Your task to perform on an android device: open sync settings in chrome Image 0: 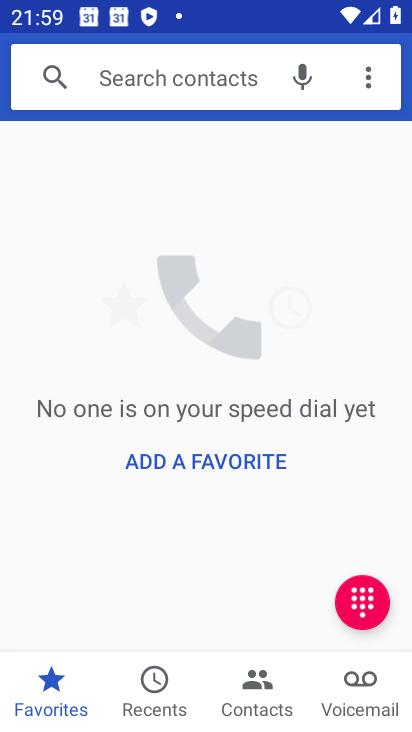
Step 0: press home button
Your task to perform on an android device: open sync settings in chrome Image 1: 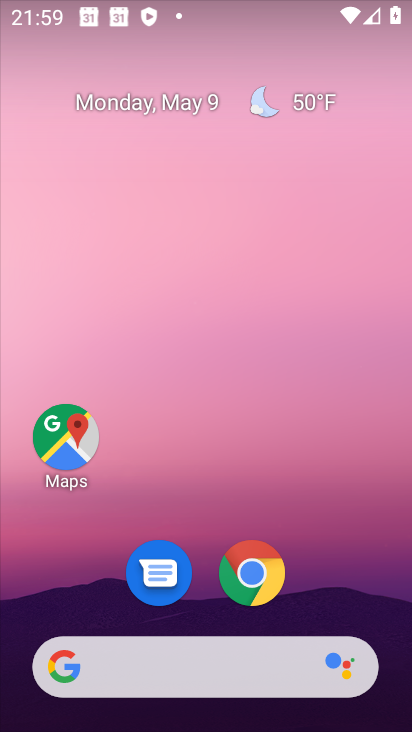
Step 1: click (245, 568)
Your task to perform on an android device: open sync settings in chrome Image 2: 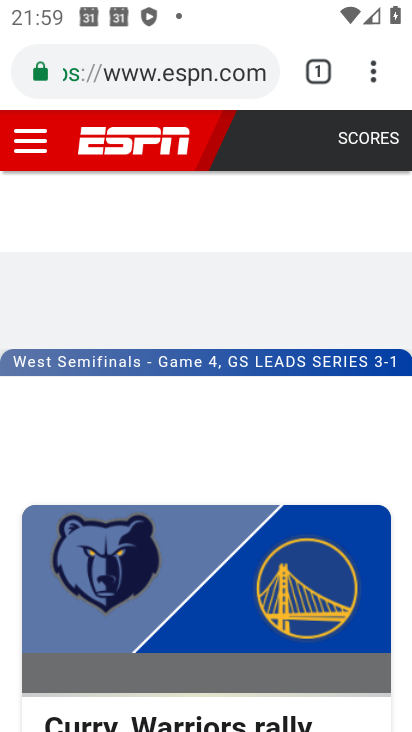
Step 2: click (373, 62)
Your task to perform on an android device: open sync settings in chrome Image 3: 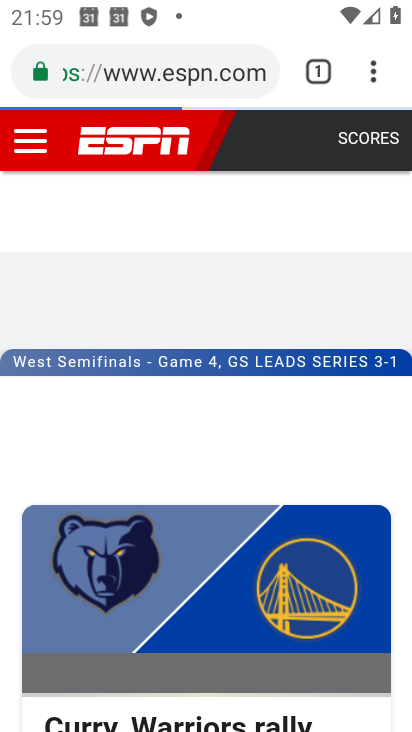
Step 3: drag from (373, 62) to (218, 577)
Your task to perform on an android device: open sync settings in chrome Image 4: 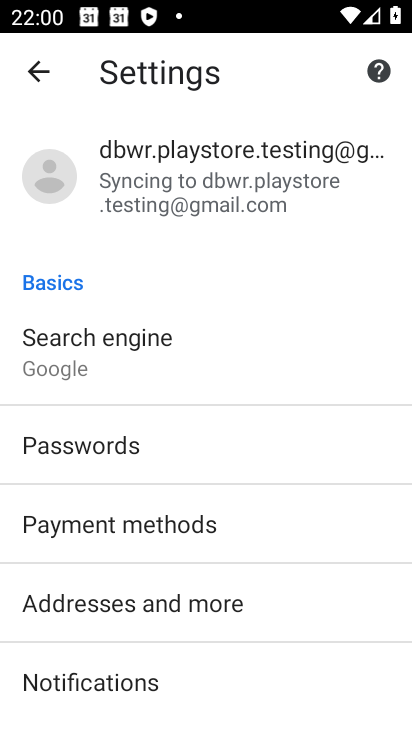
Step 4: click (202, 205)
Your task to perform on an android device: open sync settings in chrome Image 5: 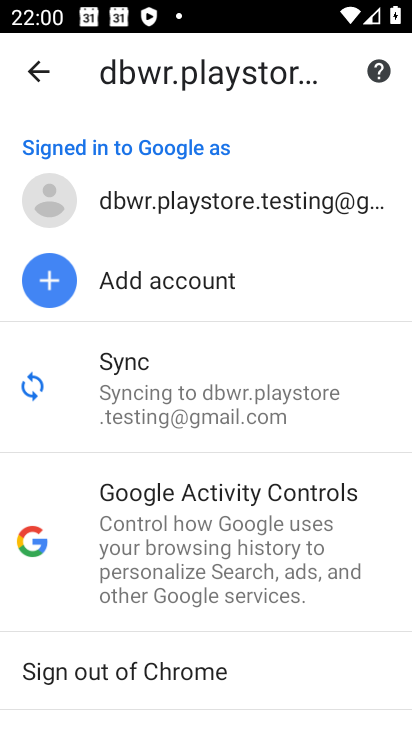
Step 5: click (263, 388)
Your task to perform on an android device: open sync settings in chrome Image 6: 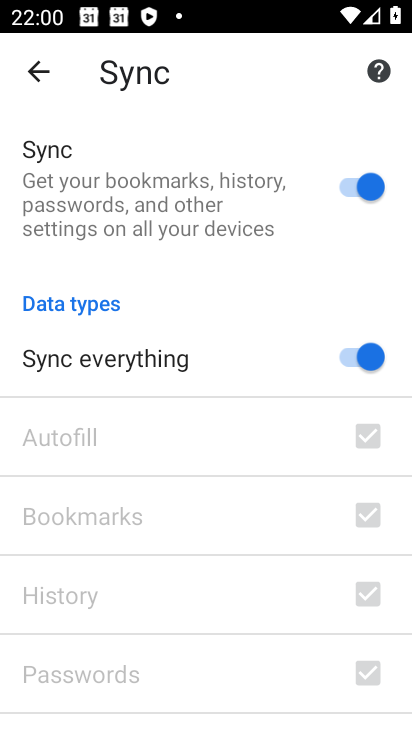
Step 6: task complete